Your task to perform on an android device: all mails in gmail Image 0: 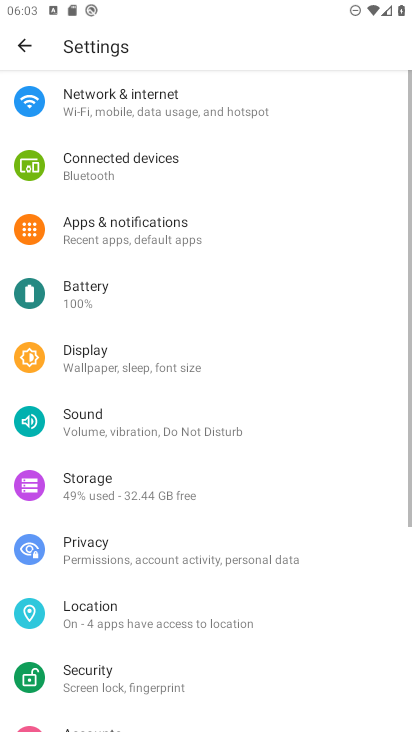
Step 0: press home button
Your task to perform on an android device: all mails in gmail Image 1: 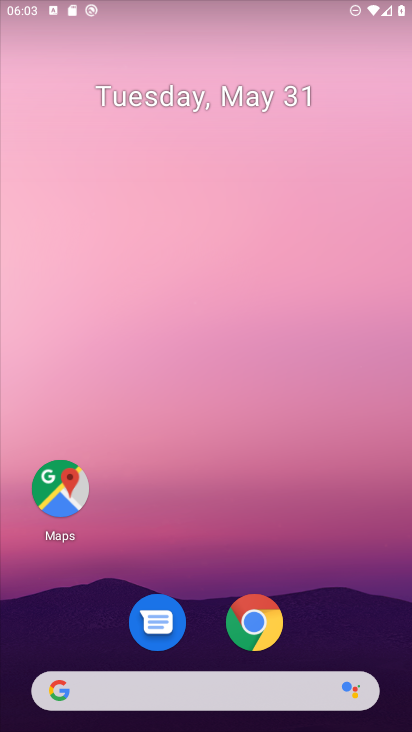
Step 1: drag from (280, 686) to (383, 92)
Your task to perform on an android device: all mails in gmail Image 2: 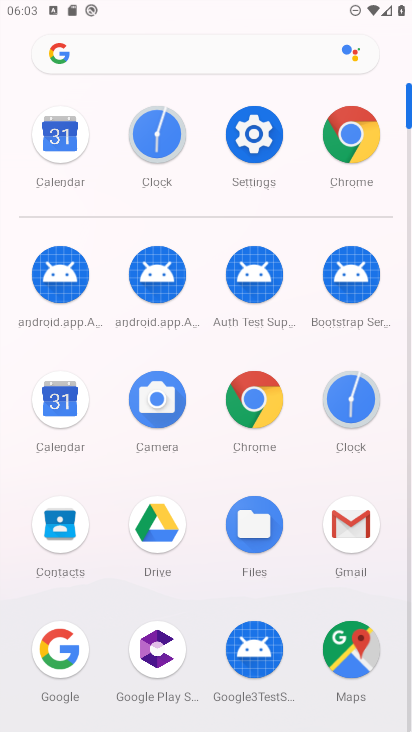
Step 2: click (354, 513)
Your task to perform on an android device: all mails in gmail Image 3: 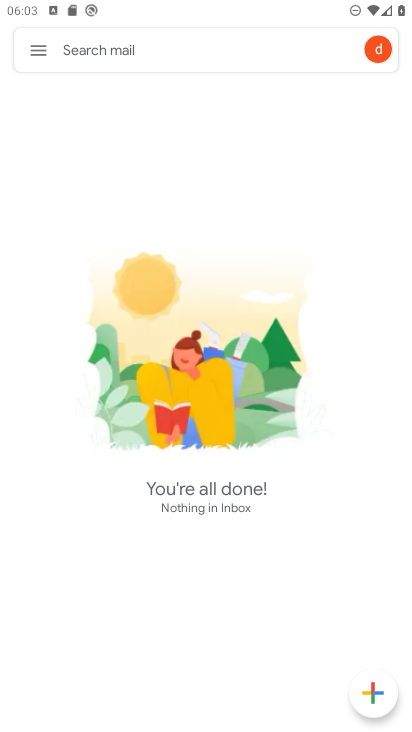
Step 3: click (39, 47)
Your task to perform on an android device: all mails in gmail Image 4: 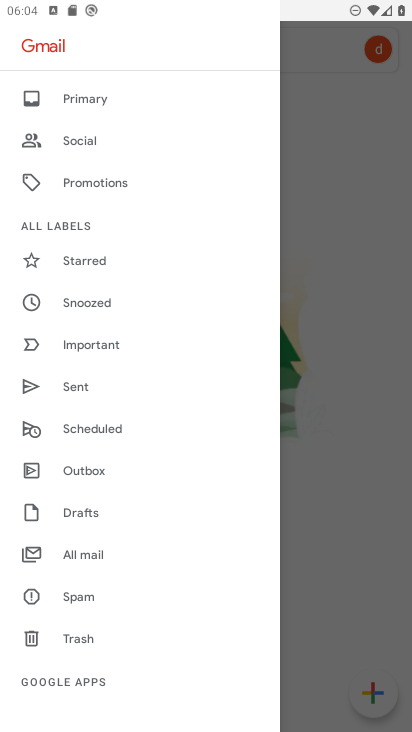
Step 4: click (100, 550)
Your task to perform on an android device: all mails in gmail Image 5: 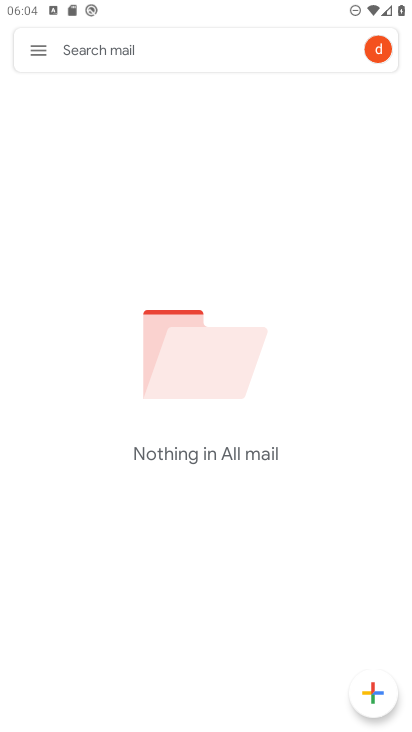
Step 5: task complete